Your task to perform on an android device: turn off notifications in google photos Image 0: 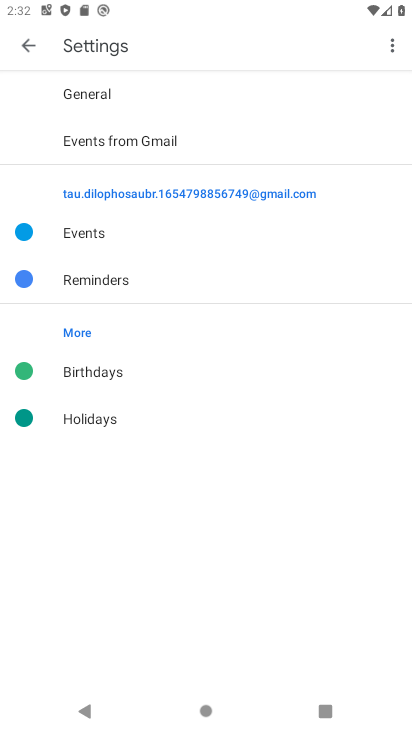
Step 0: press home button
Your task to perform on an android device: turn off notifications in google photos Image 1: 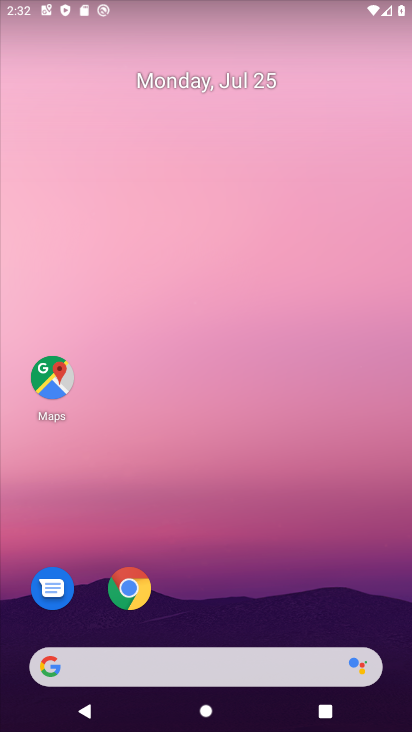
Step 1: drag from (206, 636) to (215, 152)
Your task to perform on an android device: turn off notifications in google photos Image 2: 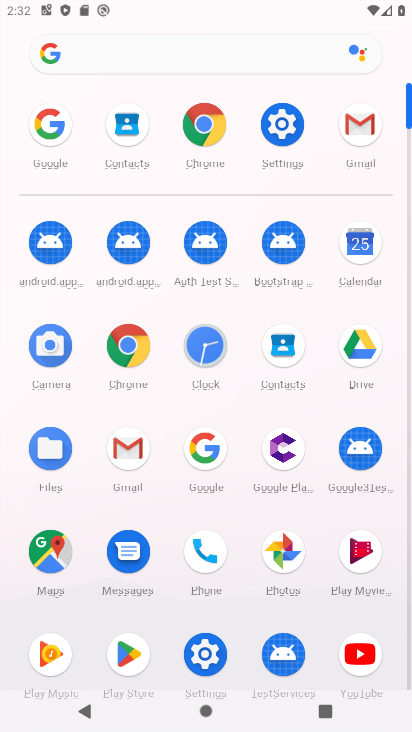
Step 2: click (271, 564)
Your task to perform on an android device: turn off notifications in google photos Image 3: 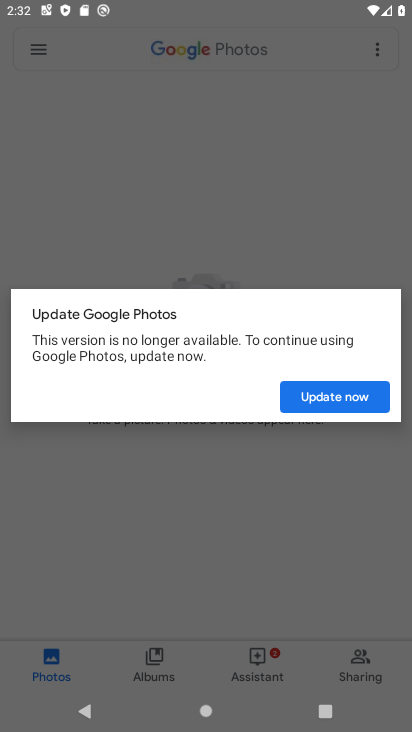
Step 3: click (335, 406)
Your task to perform on an android device: turn off notifications in google photos Image 4: 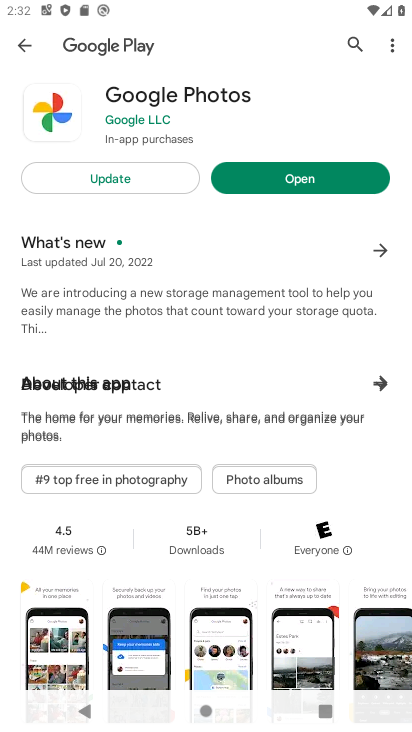
Step 4: click (235, 193)
Your task to perform on an android device: turn off notifications in google photos Image 5: 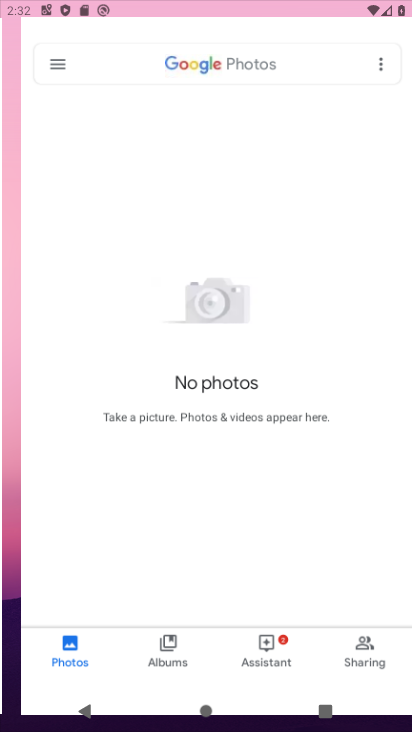
Step 5: click (267, 181)
Your task to perform on an android device: turn off notifications in google photos Image 6: 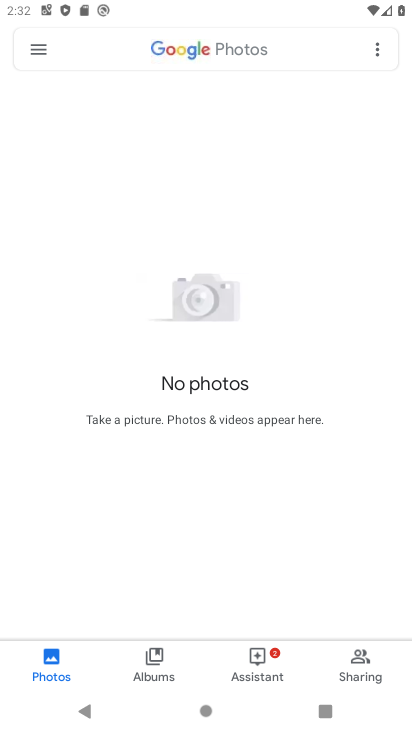
Step 6: click (33, 57)
Your task to perform on an android device: turn off notifications in google photos Image 7: 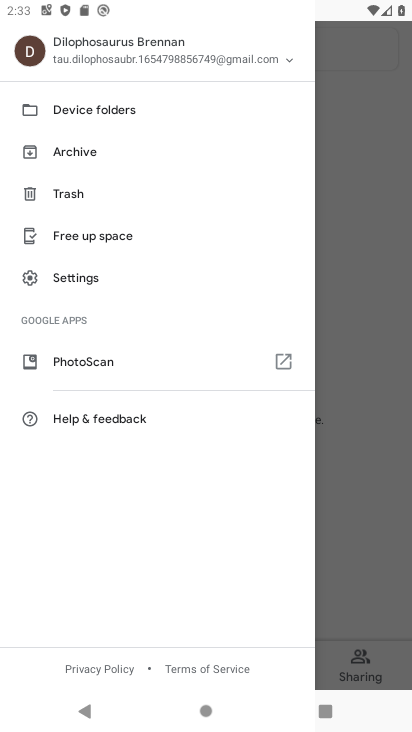
Step 7: click (45, 277)
Your task to perform on an android device: turn off notifications in google photos Image 8: 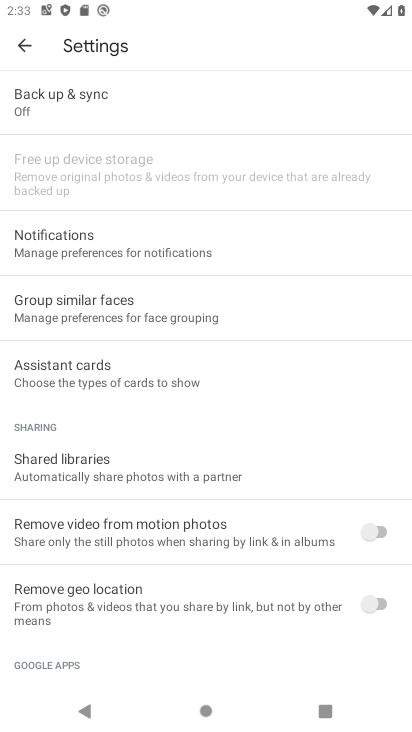
Step 8: click (84, 249)
Your task to perform on an android device: turn off notifications in google photos Image 9: 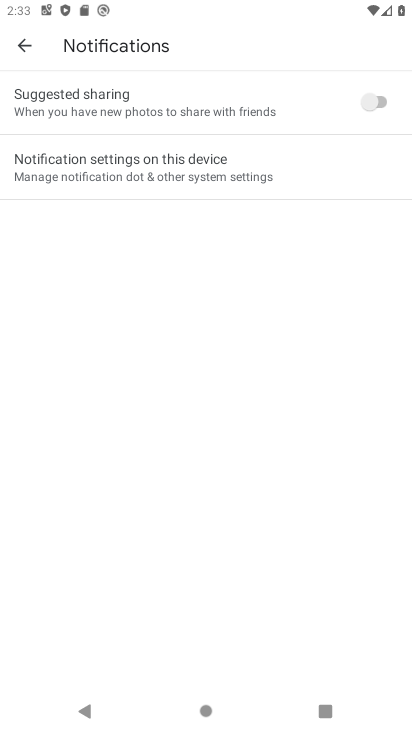
Step 9: click (230, 163)
Your task to perform on an android device: turn off notifications in google photos Image 10: 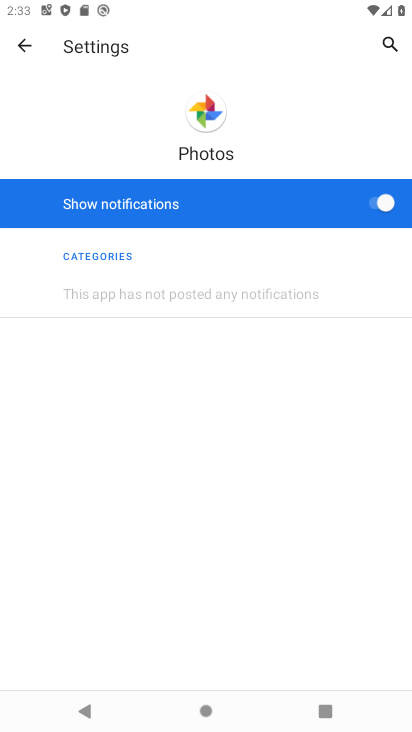
Step 10: click (368, 206)
Your task to perform on an android device: turn off notifications in google photos Image 11: 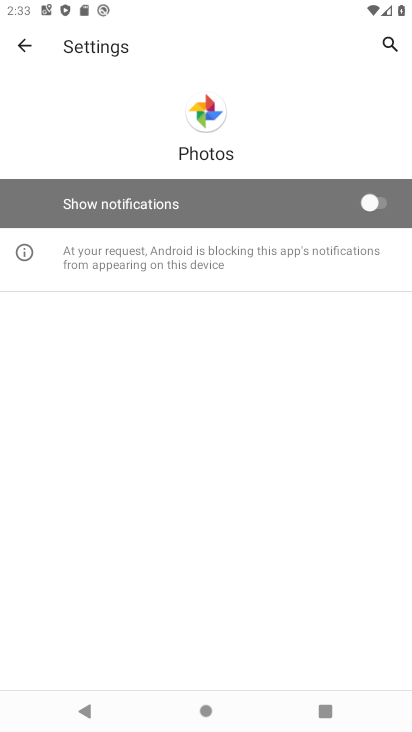
Step 11: task complete